Your task to perform on an android device: turn on the 12-hour format for clock Image 0: 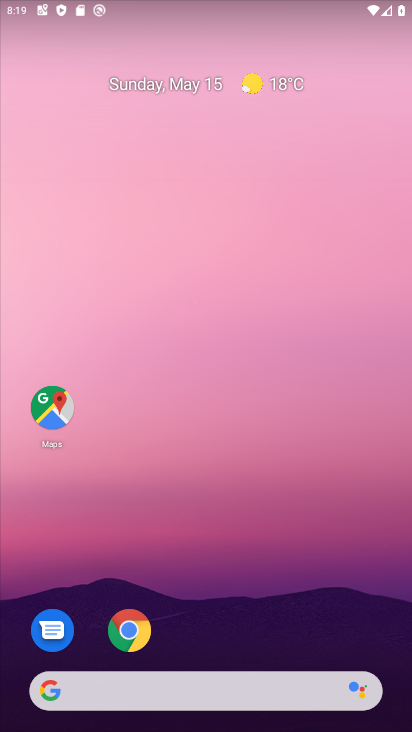
Step 0: drag from (203, 308) to (222, 198)
Your task to perform on an android device: turn on the 12-hour format for clock Image 1: 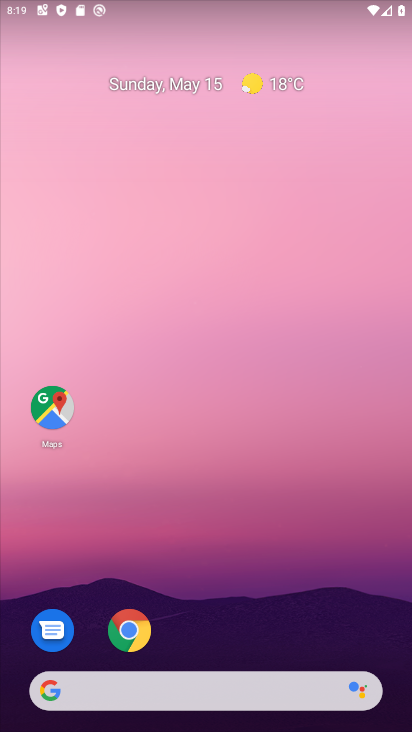
Step 1: drag from (193, 637) to (240, 145)
Your task to perform on an android device: turn on the 12-hour format for clock Image 2: 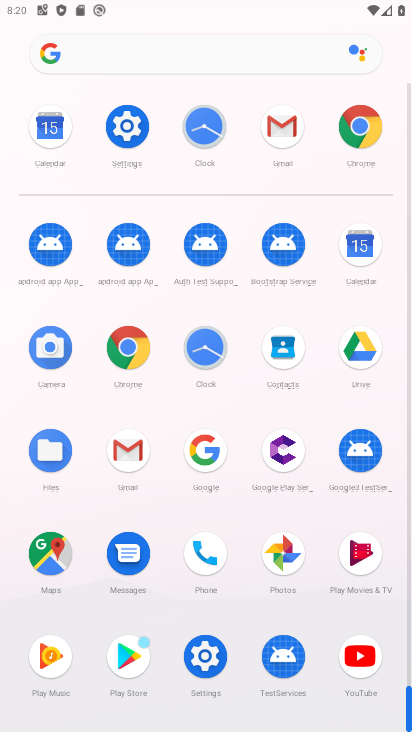
Step 2: click (201, 346)
Your task to perform on an android device: turn on the 12-hour format for clock Image 3: 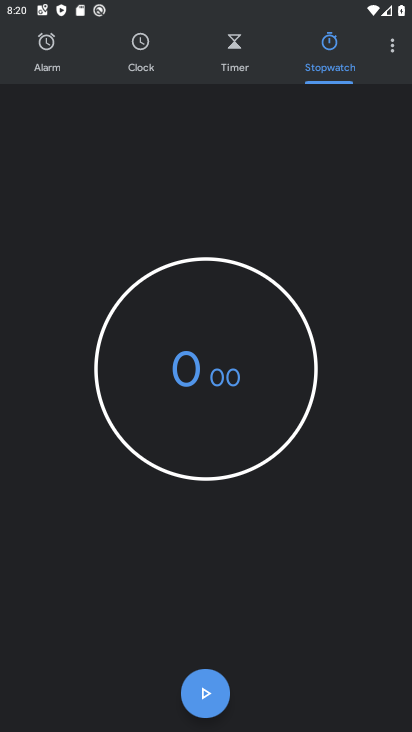
Step 3: drag from (297, 574) to (301, 375)
Your task to perform on an android device: turn on the 12-hour format for clock Image 4: 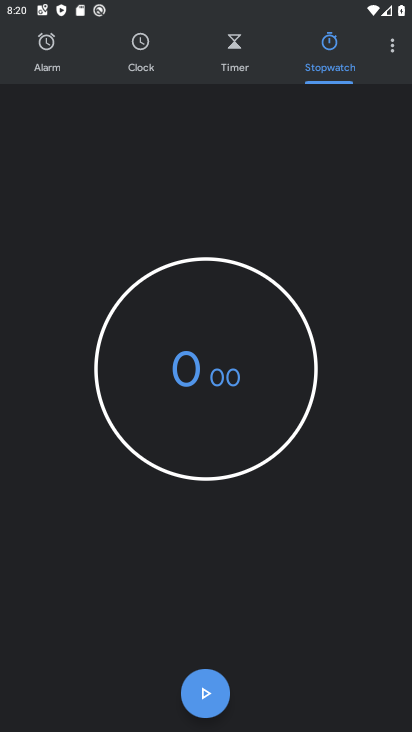
Step 4: click (211, 480)
Your task to perform on an android device: turn on the 12-hour format for clock Image 5: 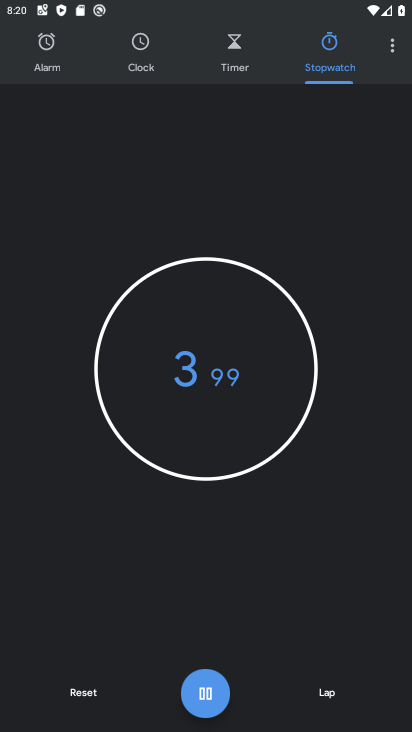
Step 5: click (390, 57)
Your task to perform on an android device: turn on the 12-hour format for clock Image 6: 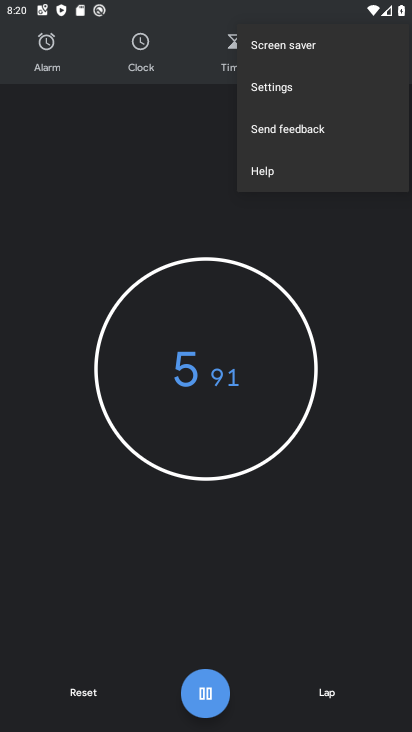
Step 6: click (293, 105)
Your task to perform on an android device: turn on the 12-hour format for clock Image 7: 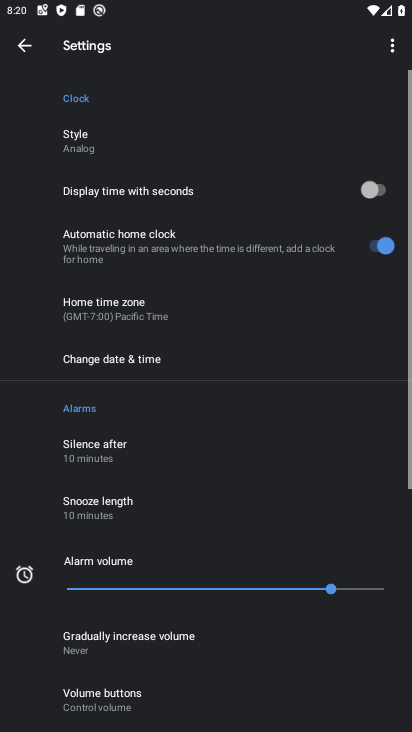
Step 7: drag from (219, 555) to (202, 152)
Your task to perform on an android device: turn on the 12-hour format for clock Image 8: 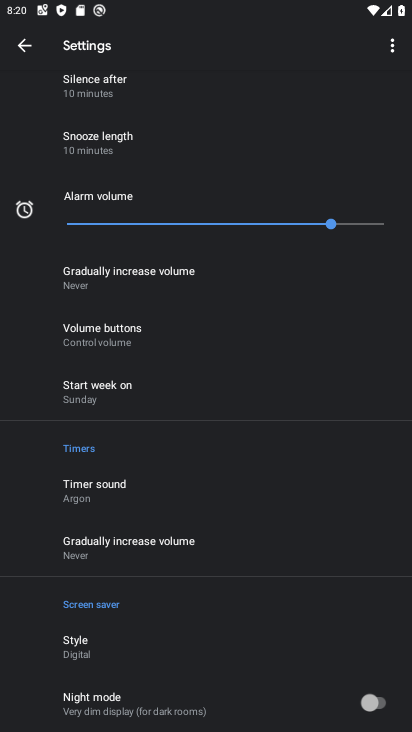
Step 8: drag from (221, 490) to (351, 730)
Your task to perform on an android device: turn on the 12-hour format for clock Image 9: 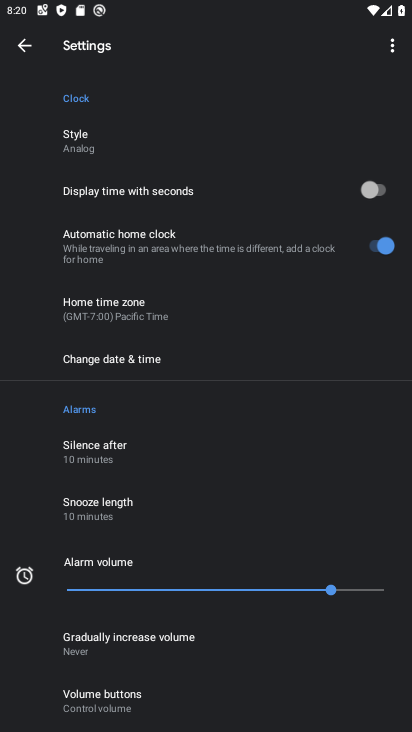
Step 9: click (131, 361)
Your task to perform on an android device: turn on the 12-hour format for clock Image 10: 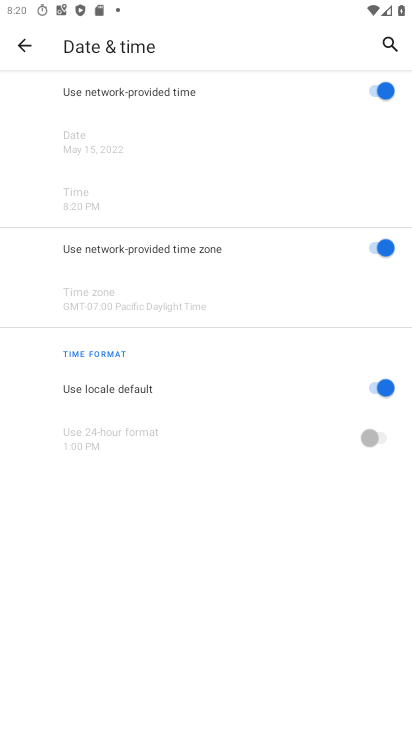
Step 10: task complete